Your task to perform on an android device: Open the calendar and show me this week's events? Image 0: 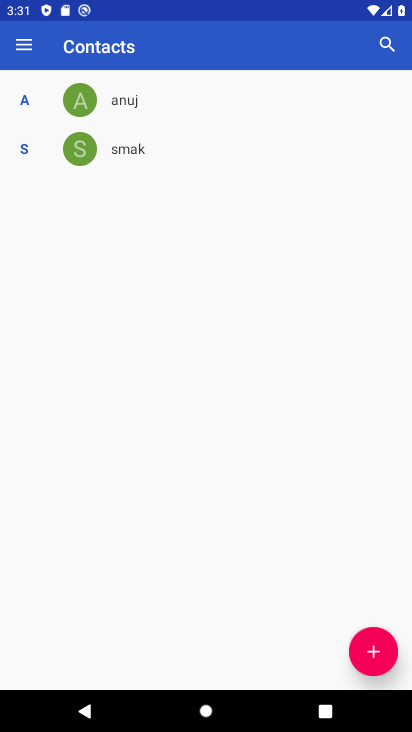
Step 0: press home button
Your task to perform on an android device: Open the calendar and show me this week's events? Image 1: 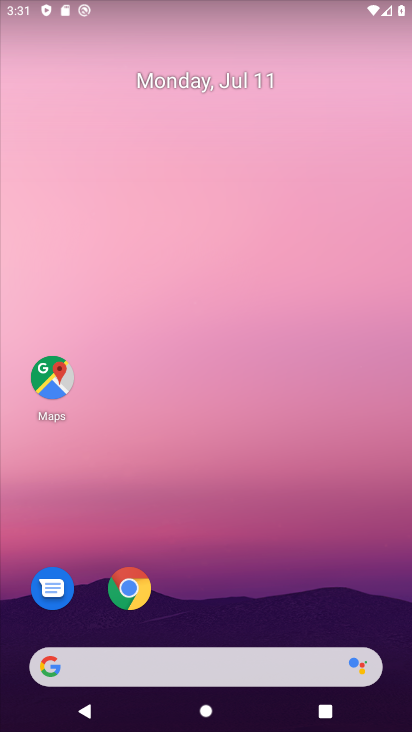
Step 1: drag from (345, 607) to (357, 100)
Your task to perform on an android device: Open the calendar and show me this week's events? Image 2: 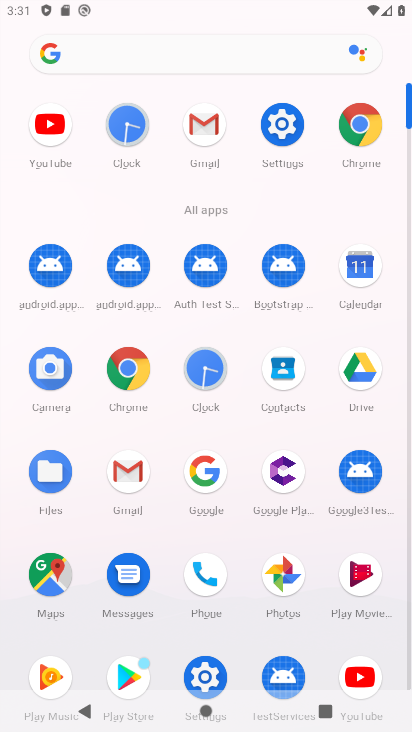
Step 2: click (359, 272)
Your task to perform on an android device: Open the calendar and show me this week's events? Image 3: 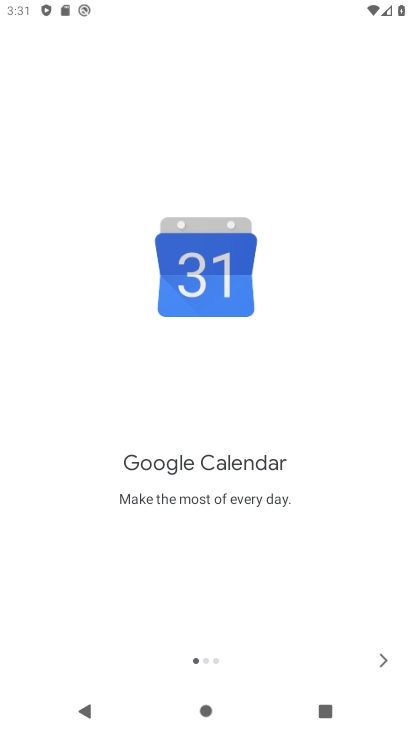
Step 3: click (386, 660)
Your task to perform on an android device: Open the calendar and show me this week's events? Image 4: 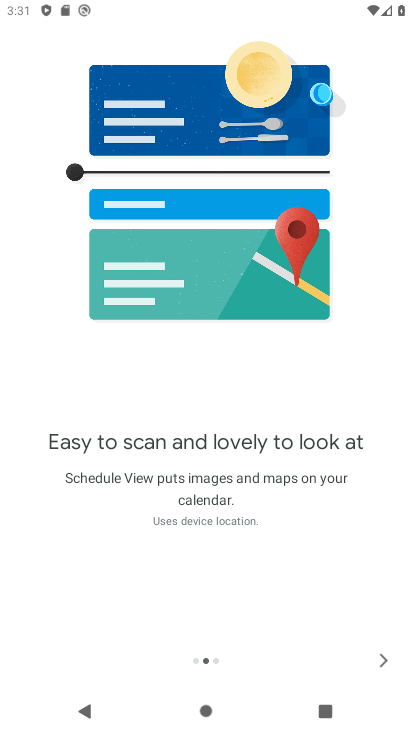
Step 4: click (378, 659)
Your task to perform on an android device: Open the calendar and show me this week's events? Image 5: 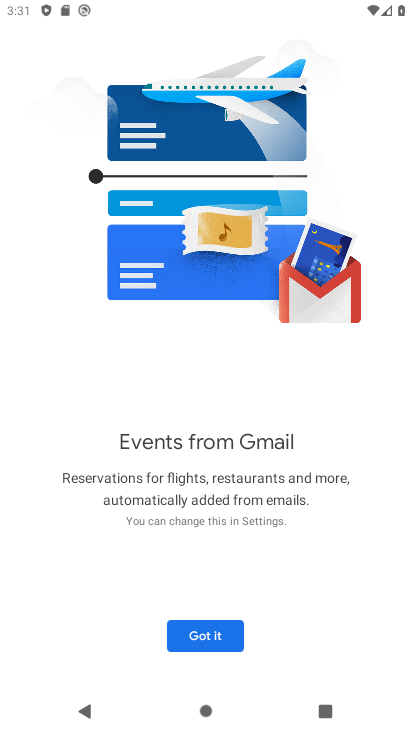
Step 5: click (232, 636)
Your task to perform on an android device: Open the calendar and show me this week's events? Image 6: 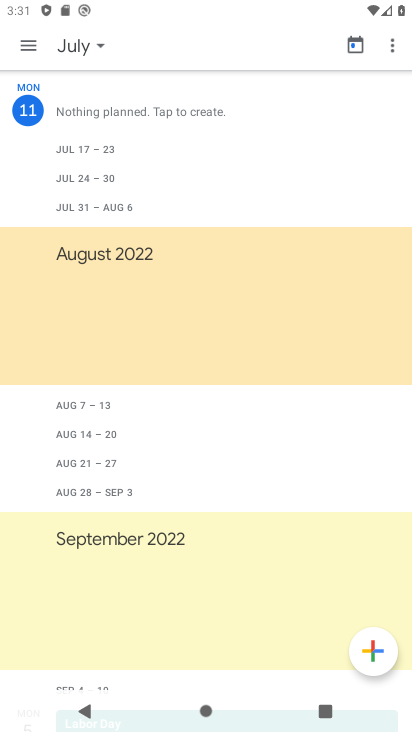
Step 6: click (98, 44)
Your task to perform on an android device: Open the calendar and show me this week's events? Image 7: 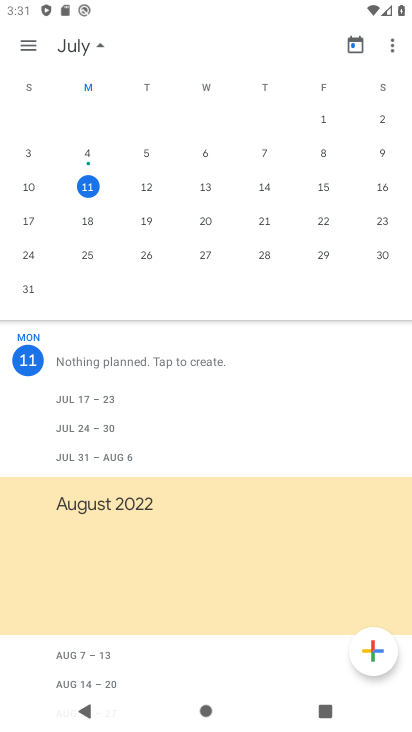
Step 7: click (87, 183)
Your task to perform on an android device: Open the calendar and show me this week's events? Image 8: 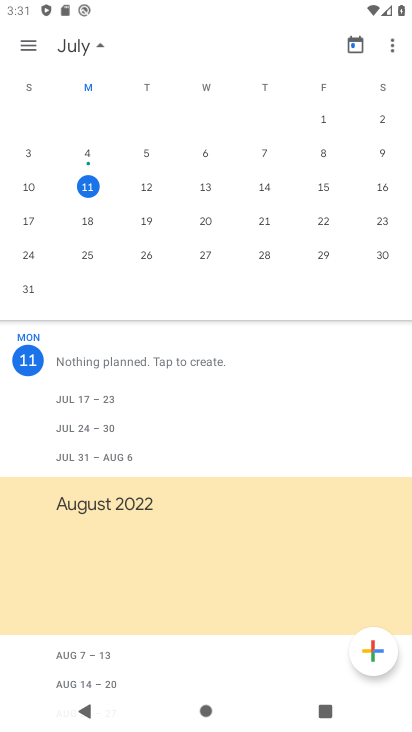
Step 8: task complete